Your task to perform on an android device: Open settings Image 0: 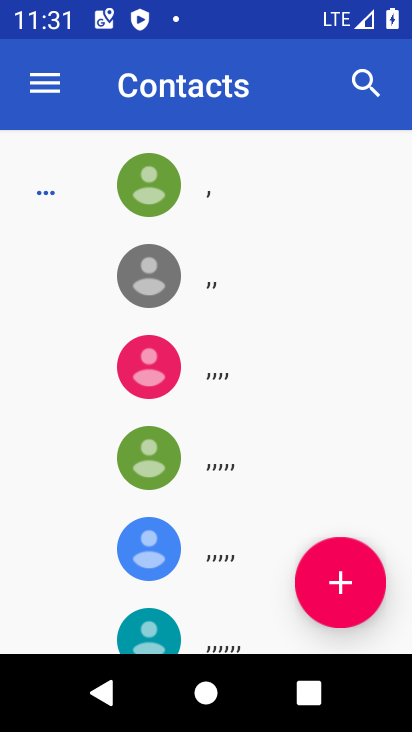
Step 0: drag from (158, 508) to (308, 125)
Your task to perform on an android device: Open settings Image 1: 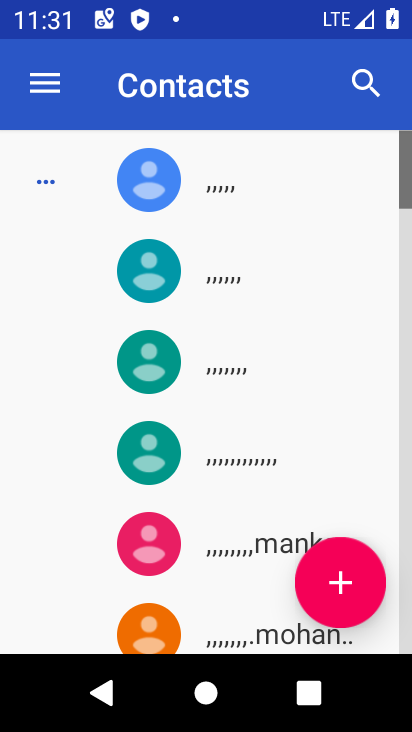
Step 1: press home button
Your task to perform on an android device: Open settings Image 2: 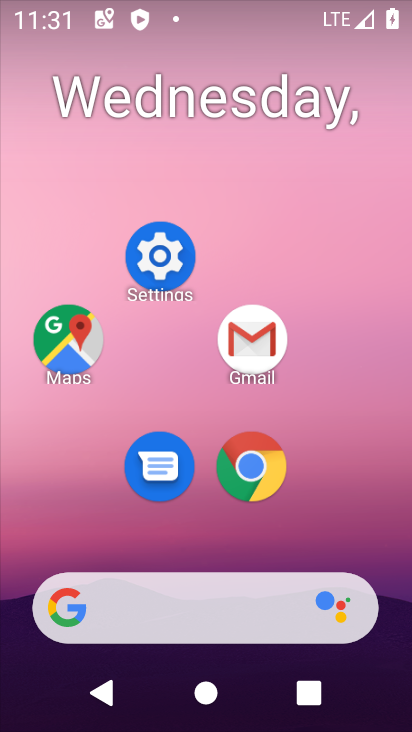
Step 2: click (150, 260)
Your task to perform on an android device: Open settings Image 3: 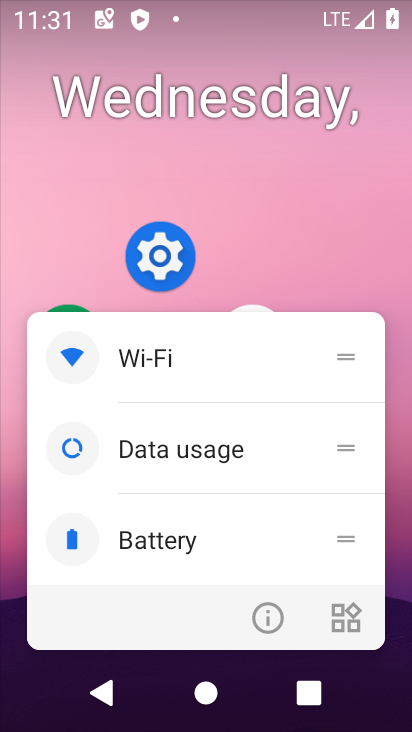
Step 3: click (262, 623)
Your task to perform on an android device: Open settings Image 4: 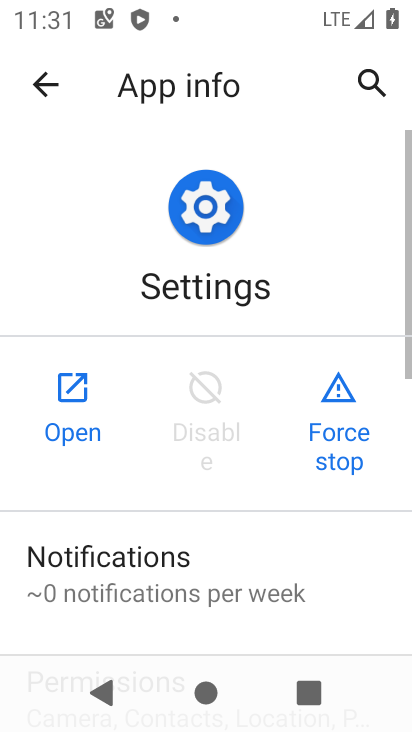
Step 4: click (65, 385)
Your task to perform on an android device: Open settings Image 5: 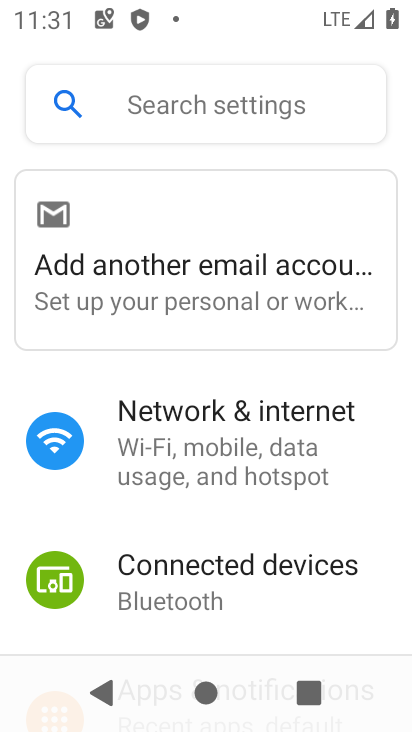
Step 5: task complete